Your task to perform on an android device: toggle wifi Image 0: 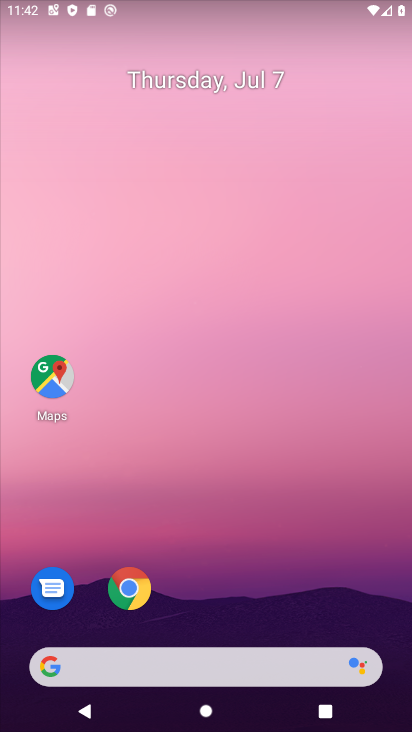
Step 0: drag from (213, 596) to (227, 112)
Your task to perform on an android device: toggle wifi Image 1: 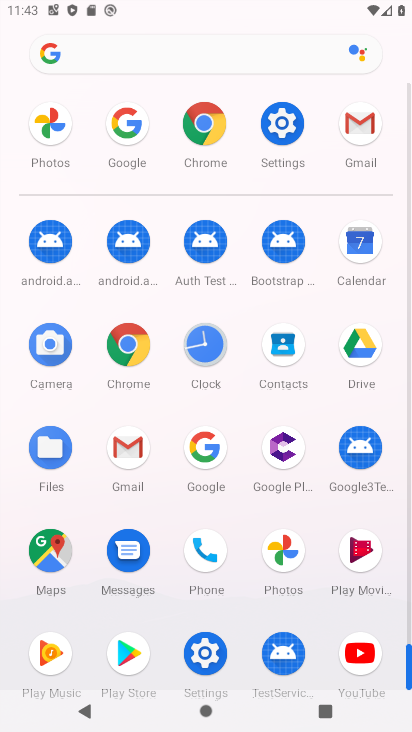
Step 1: click (286, 121)
Your task to perform on an android device: toggle wifi Image 2: 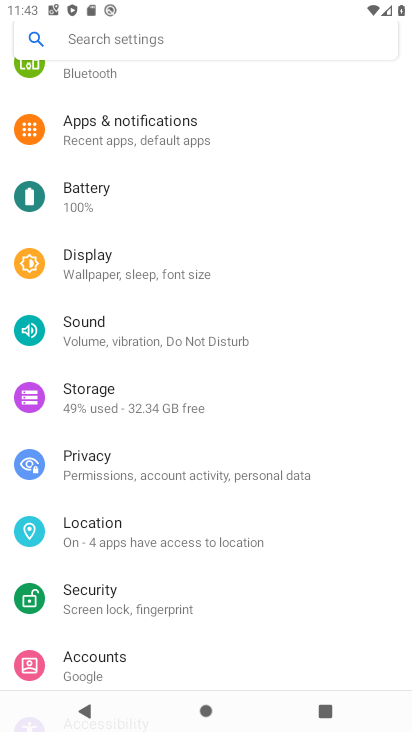
Step 2: drag from (141, 111) to (157, 528)
Your task to perform on an android device: toggle wifi Image 3: 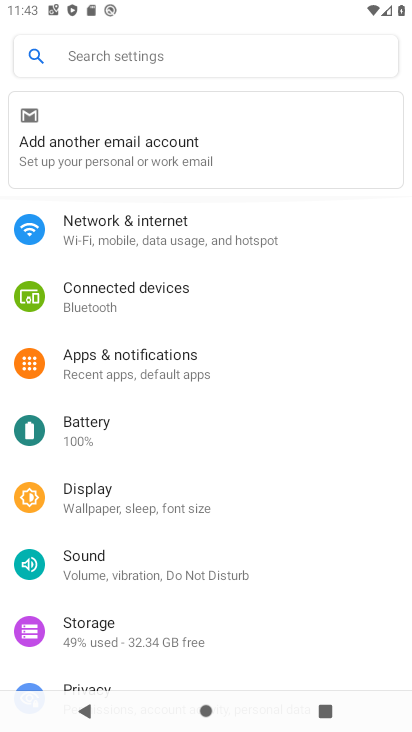
Step 3: click (124, 226)
Your task to perform on an android device: toggle wifi Image 4: 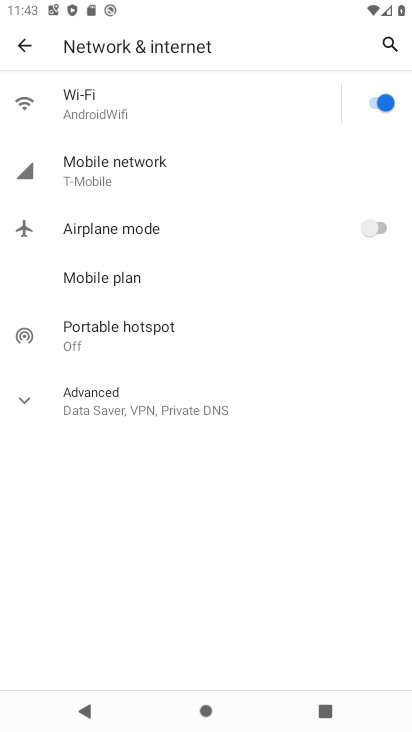
Step 4: click (386, 101)
Your task to perform on an android device: toggle wifi Image 5: 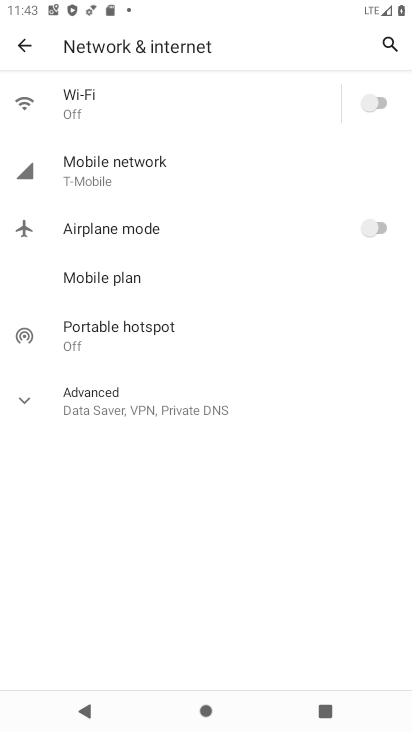
Step 5: task complete